Your task to perform on an android device: Go to privacy settings Image 0: 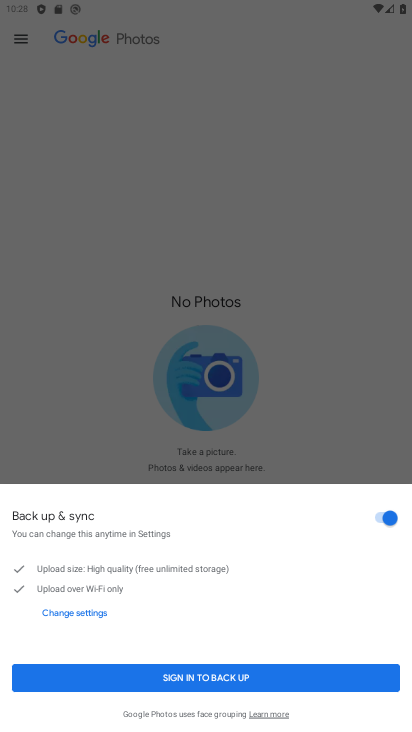
Step 0: press home button
Your task to perform on an android device: Go to privacy settings Image 1: 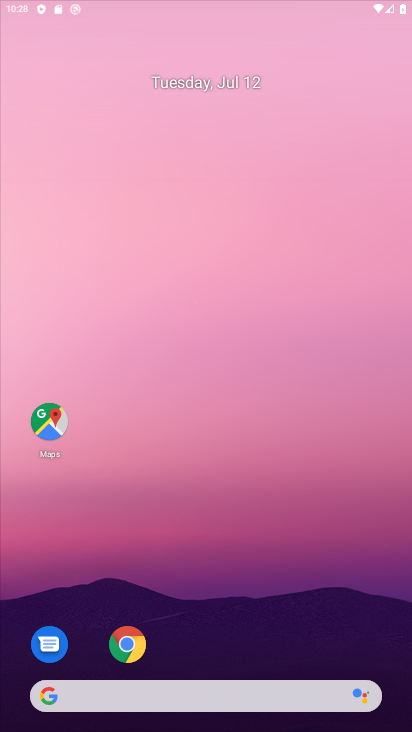
Step 1: drag from (264, 654) to (308, 63)
Your task to perform on an android device: Go to privacy settings Image 2: 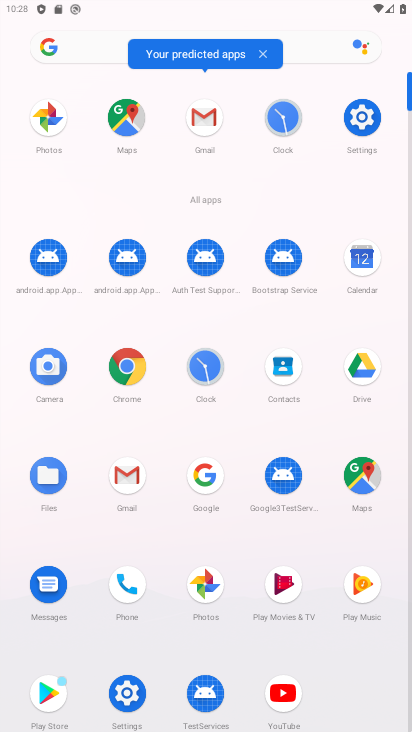
Step 2: click (371, 120)
Your task to perform on an android device: Go to privacy settings Image 3: 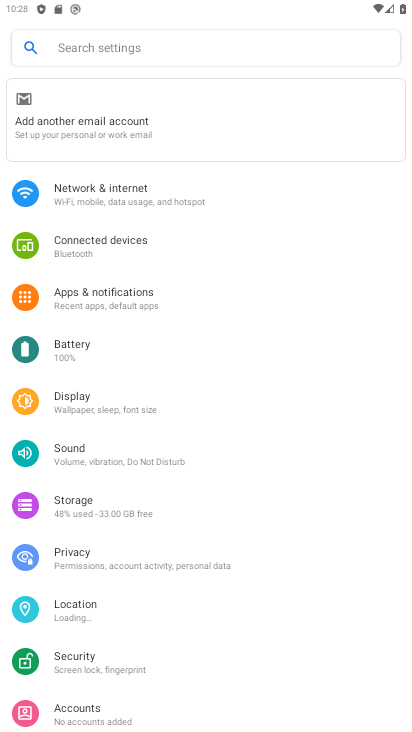
Step 3: click (94, 562)
Your task to perform on an android device: Go to privacy settings Image 4: 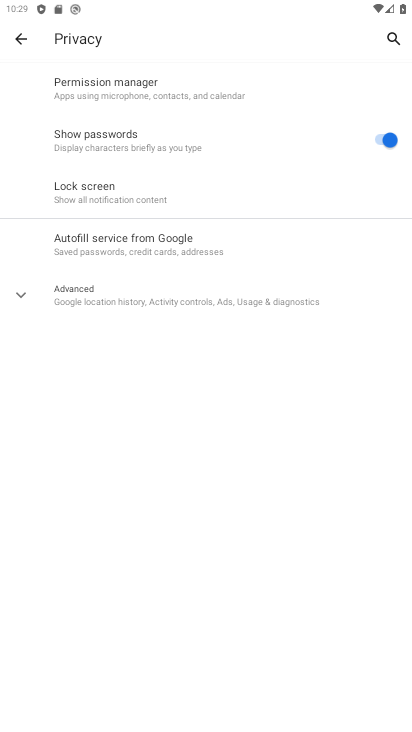
Step 4: task complete